Your task to perform on an android device: open device folders in google photos Image 0: 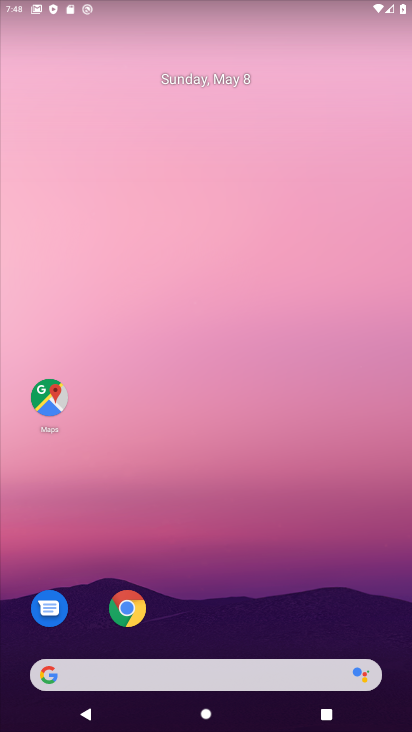
Step 0: drag from (211, 621) to (229, 274)
Your task to perform on an android device: open device folders in google photos Image 1: 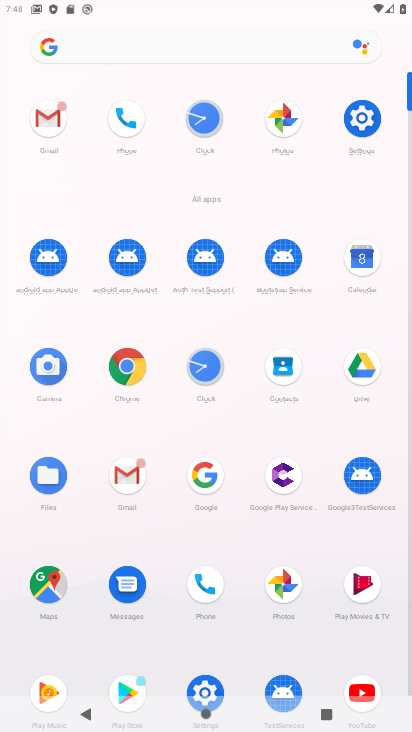
Step 1: click (286, 578)
Your task to perform on an android device: open device folders in google photos Image 2: 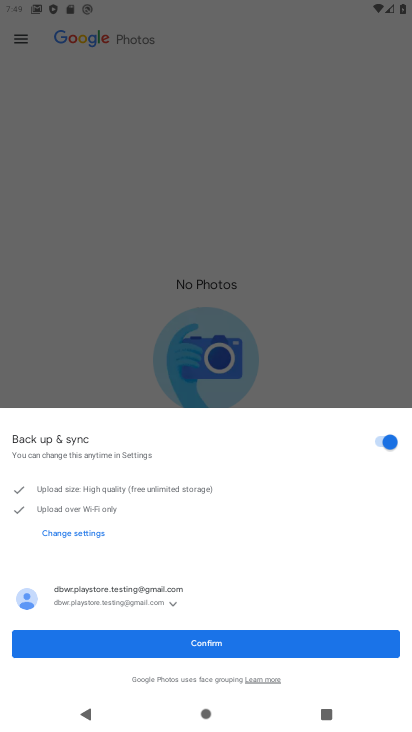
Step 2: click (208, 645)
Your task to perform on an android device: open device folders in google photos Image 3: 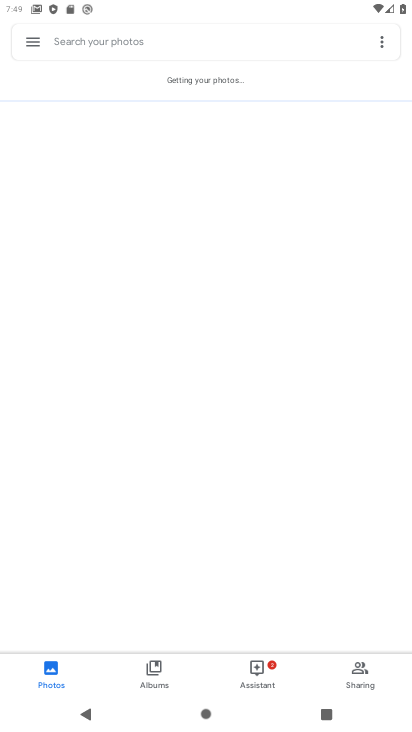
Step 3: click (145, 666)
Your task to perform on an android device: open device folders in google photos Image 4: 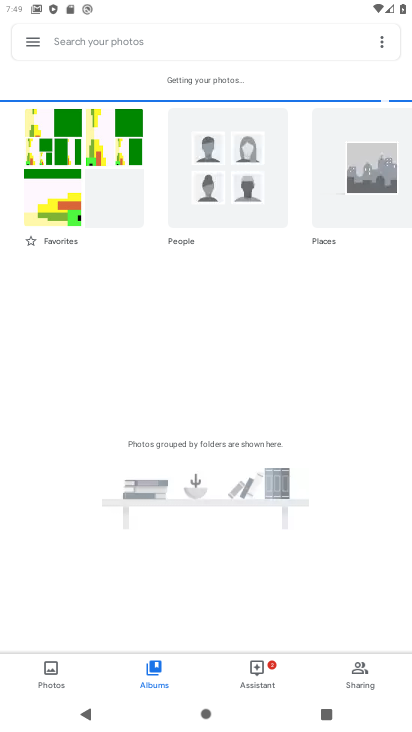
Step 4: click (34, 132)
Your task to perform on an android device: open device folders in google photos Image 5: 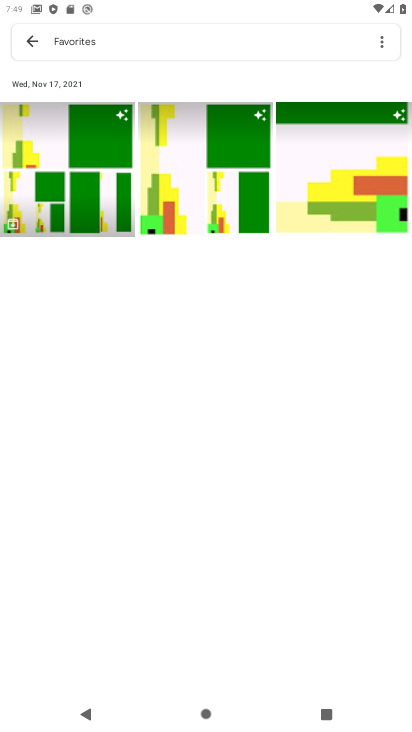
Step 5: task complete